Your task to perform on an android device: Open settings Image 0: 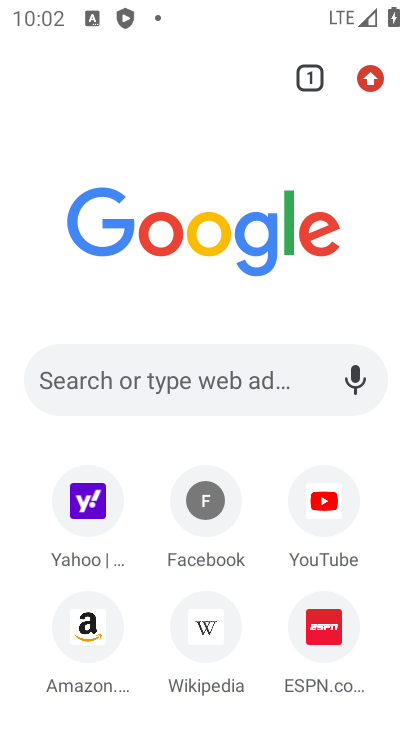
Step 0: press home button
Your task to perform on an android device: Open settings Image 1: 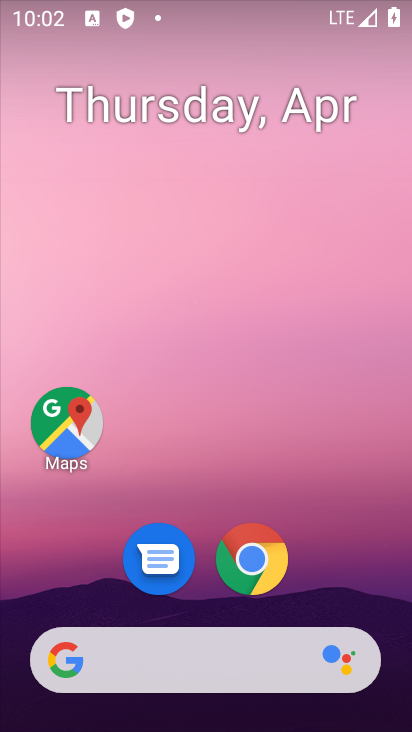
Step 1: drag from (222, 726) to (235, 69)
Your task to perform on an android device: Open settings Image 2: 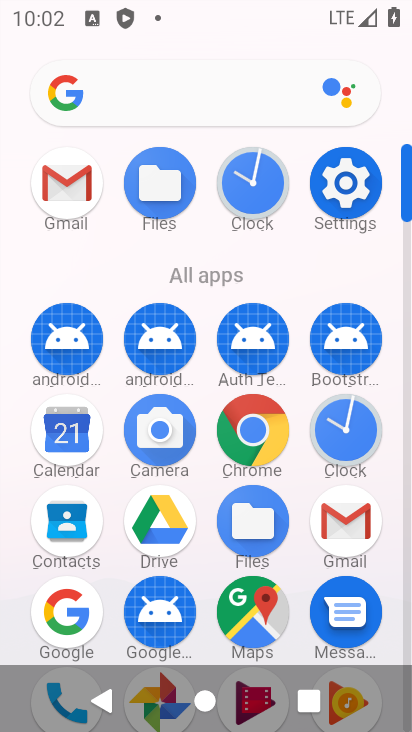
Step 2: click (349, 178)
Your task to perform on an android device: Open settings Image 3: 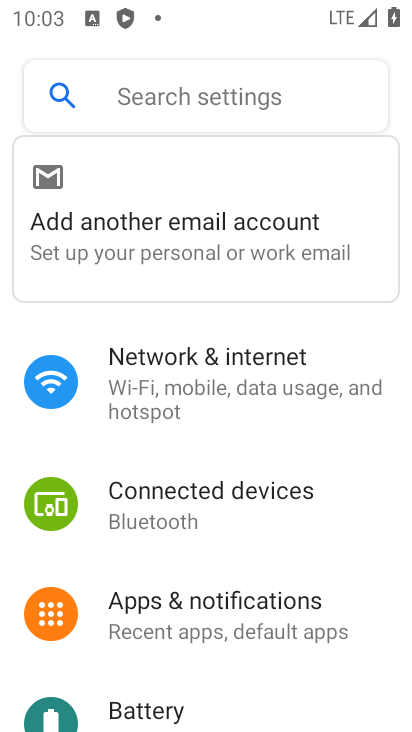
Step 3: task complete